Your task to perform on an android device: Do I have any events this weekend? Image 0: 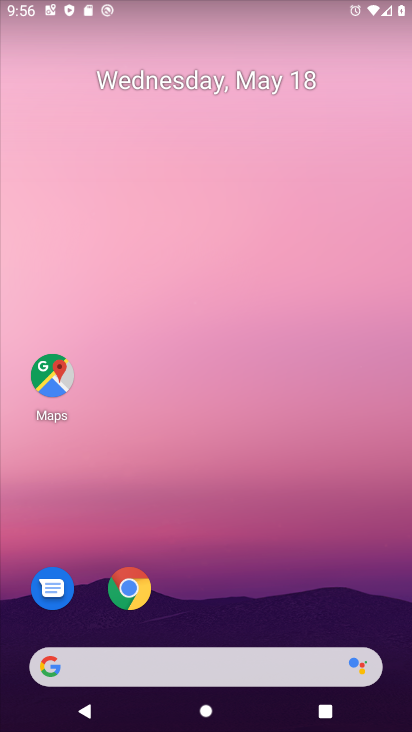
Step 0: drag from (276, 698) to (270, 237)
Your task to perform on an android device: Do I have any events this weekend? Image 1: 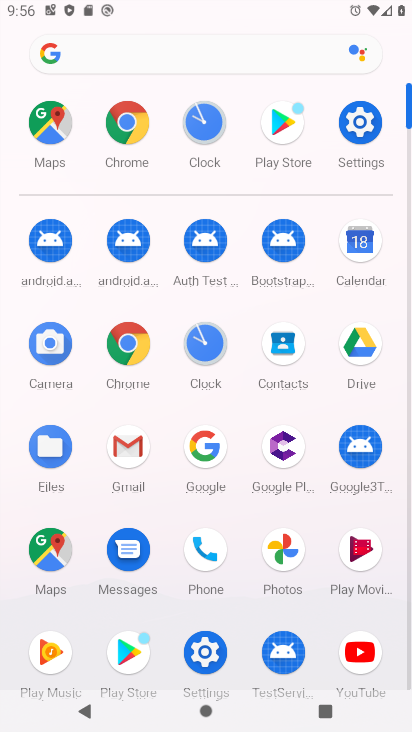
Step 1: click (363, 250)
Your task to perform on an android device: Do I have any events this weekend? Image 2: 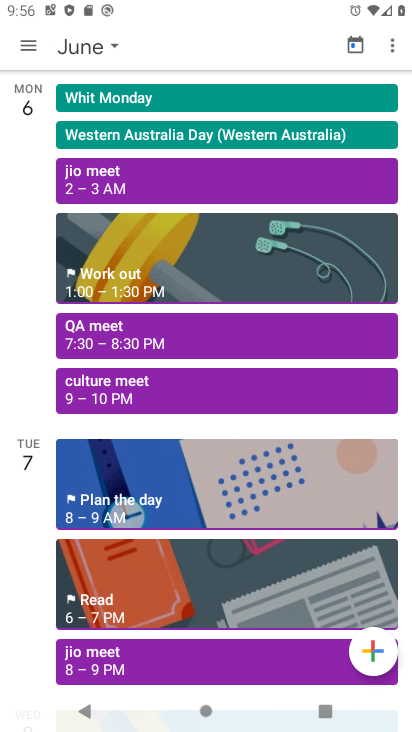
Step 2: click (25, 38)
Your task to perform on an android device: Do I have any events this weekend? Image 3: 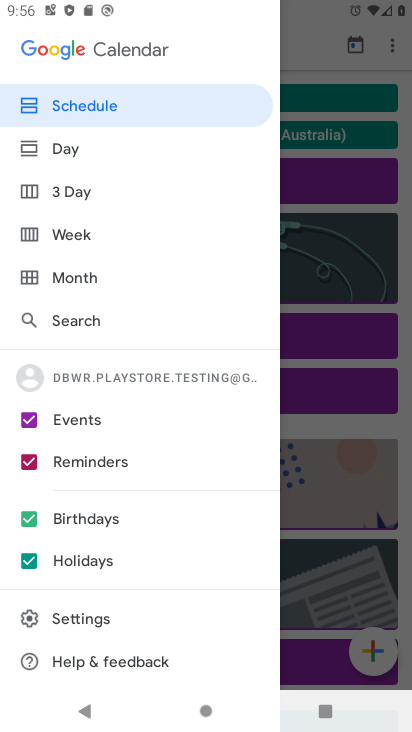
Step 3: click (90, 284)
Your task to perform on an android device: Do I have any events this weekend? Image 4: 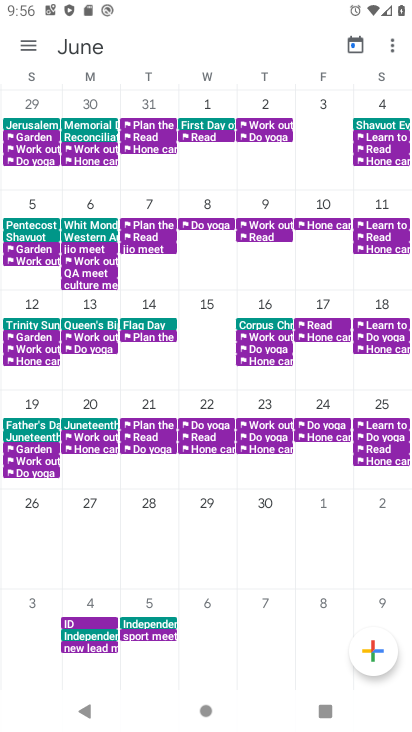
Step 4: drag from (48, 401) to (410, 312)
Your task to perform on an android device: Do I have any events this weekend? Image 5: 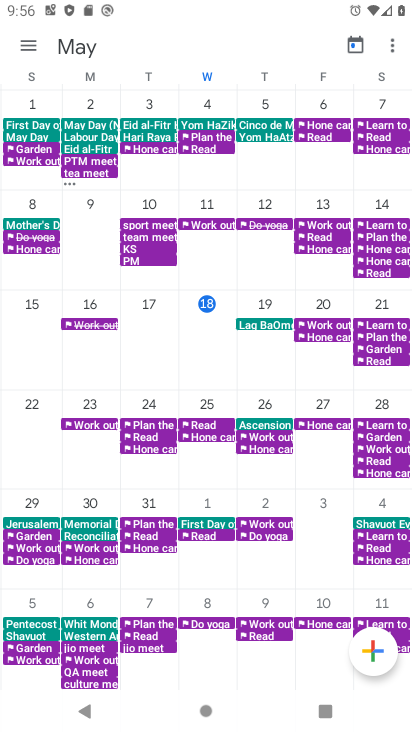
Step 5: click (195, 313)
Your task to perform on an android device: Do I have any events this weekend? Image 6: 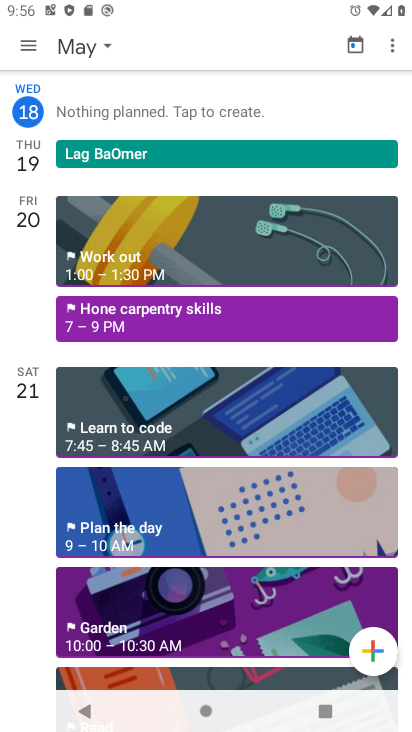
Step 6: task complete